Your task to perform on an android device: see creations saved in the google photos Image 0: 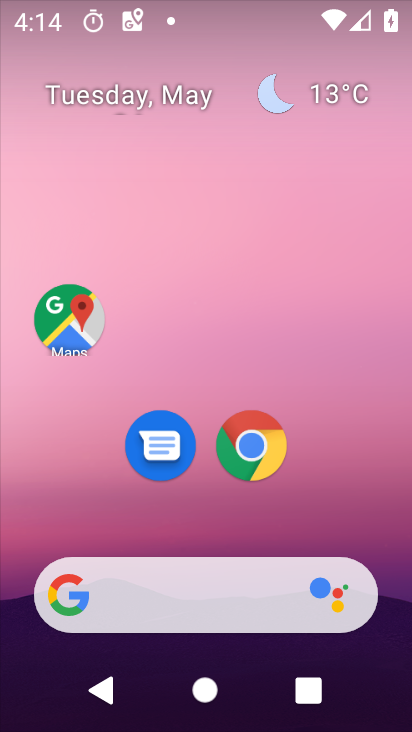
Step 0: press home button
Your task to perform on an android device: see creations saved in the google photos Image 1: 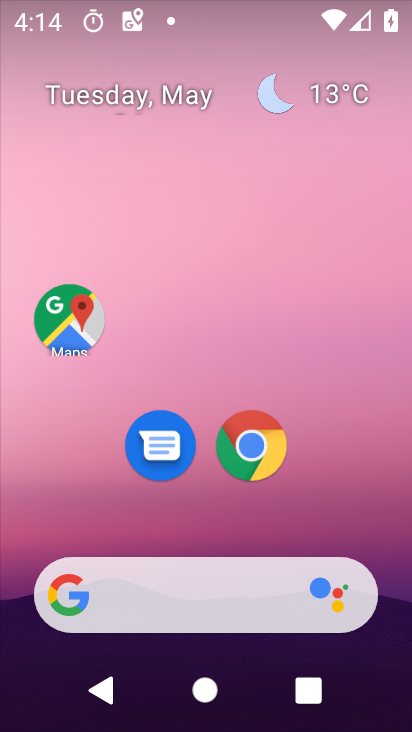
Step 1: click (250, 444)
Your task to perform on an android device: see creations saved in the google photos Image 2: 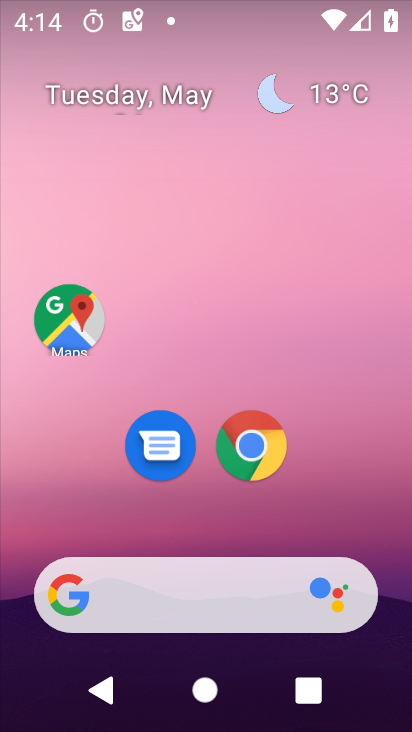
Step 2: drag from (211, 530) to (233, 122)
Your task to perform on an android device: see creations saved in the google photos Image 3: 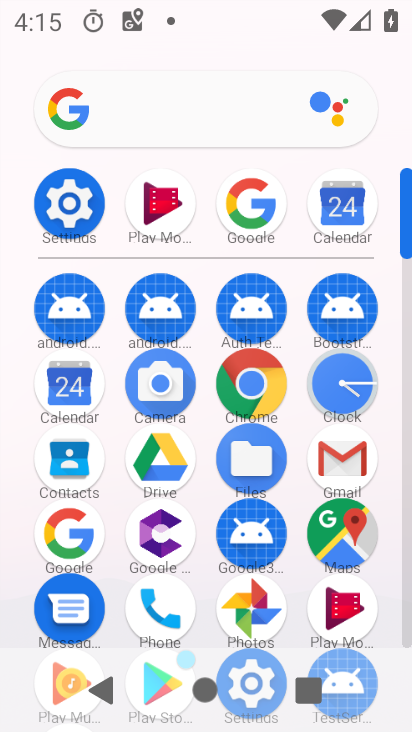
Step 3: click (242, 597)
Your task to perform on an android device: see creations saved in the google photos Image 4: 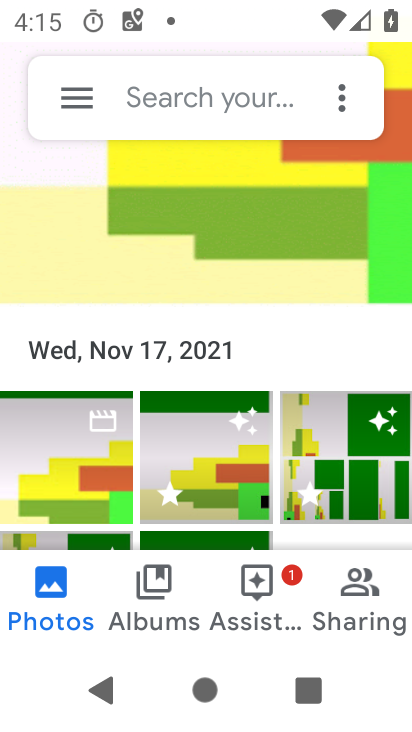
Step 4: click (170, 95)
Your task to perform on an android device: see creations saved in the google photos Image 5: 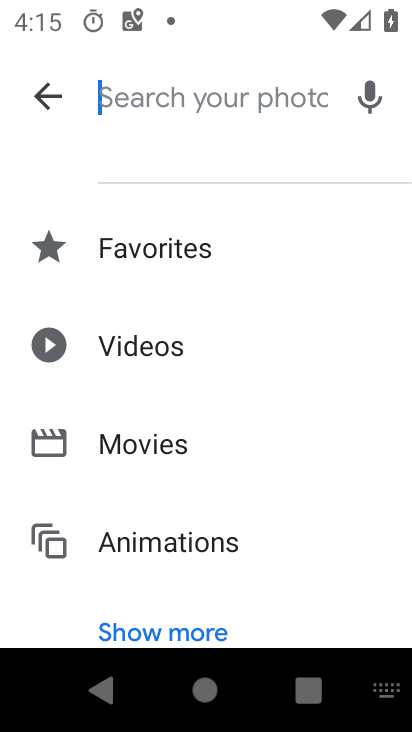
Step 5: click (185, 623)
Your task to perform on an android device: see creations saved in the google photos Image 6: 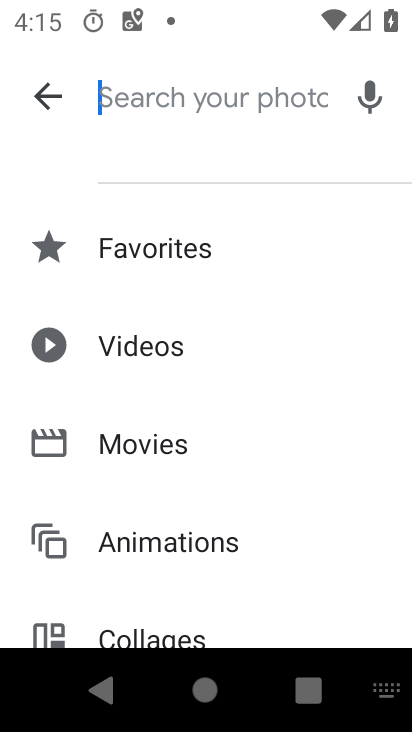
Step 6: drag from (220, 615) to (228, 283)
Your task to perform on an android device: see creations saved in the google photos Image 7: 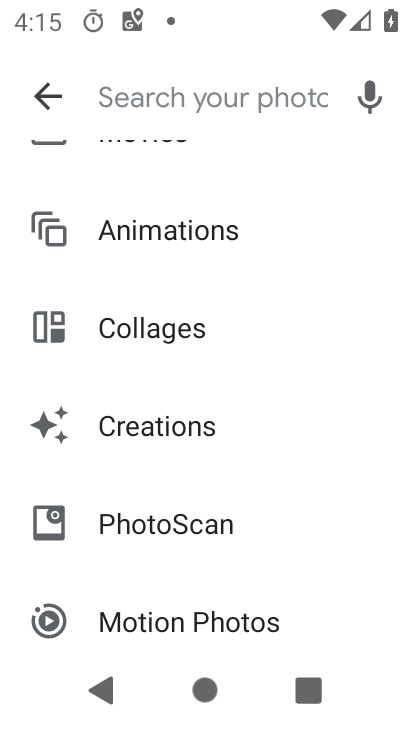
Step 7: click (227, 422)
Your task to perform on an android device: see creations saved in the google photos Image 8: 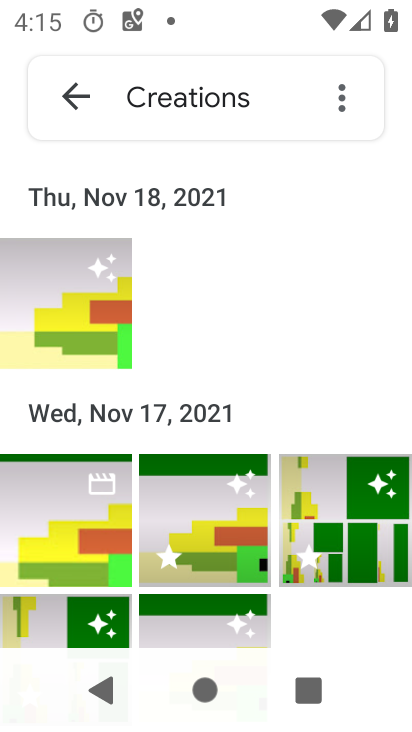
Step 8: task complete